Your task to perform on an android device: turn off data saver in the chrome app Image 0: 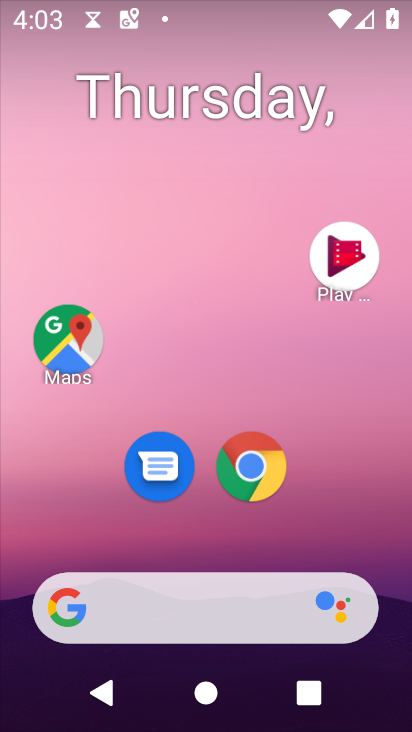
Step 0: drag from (215, 552) to (217, 57)
Your task to perform on an android device: turn off data saver in the chrome app Image 1: 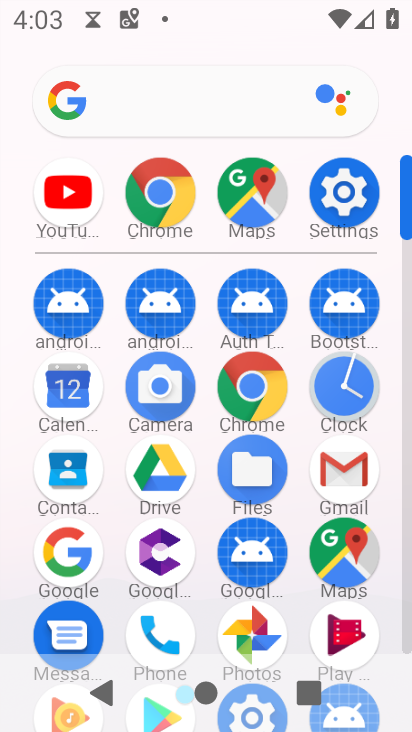
Step 1: click (230, 390)
Your task to perform on an android device: turn off data saver in the chrome app Image 2: 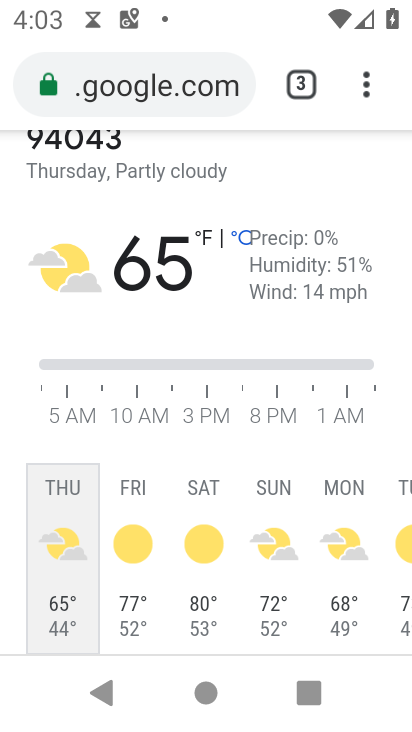
Step 2: drag from (368, 81) to (159, 530)
Your task to perform on an android device: turn off data saver in the chrome app Image 3: 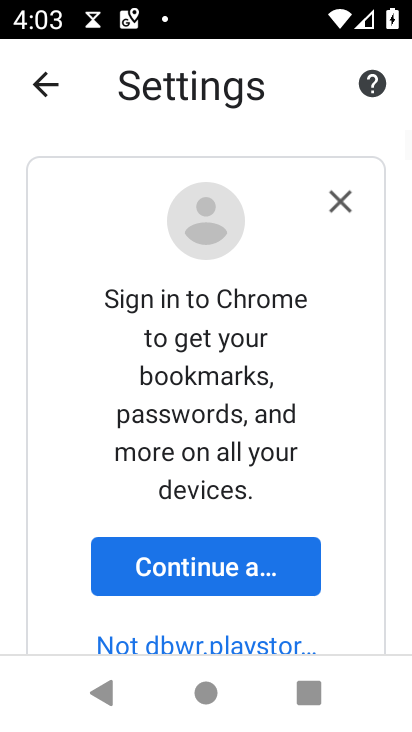
Step 3: drag from (280, 516) to (339, 0)
Your task to perform on an android device: turn off data saver in the chrome app Image 4: 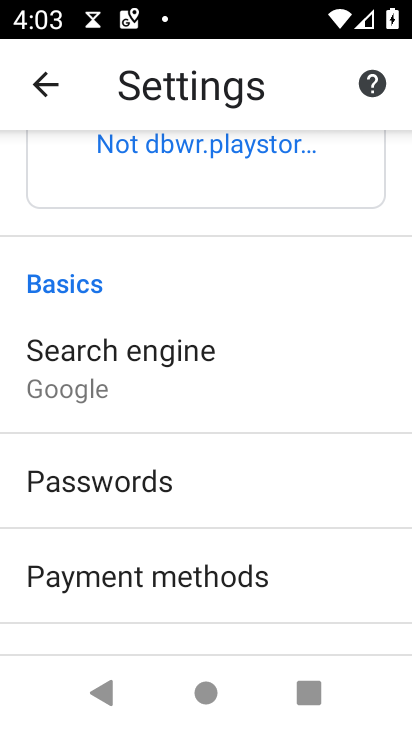
Step 4: drag from (184, 631) to (242, 70)
Your task to perform on an android device: turn off data saver in the chrome app Image 5: 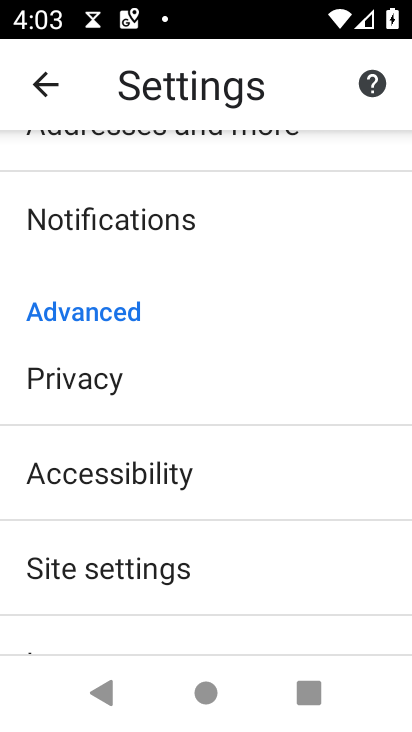
Step 5: drag from (84, 643) to (175, 422)
Your task to perform on an android device: turn off data saver in the chrome app Image 6: 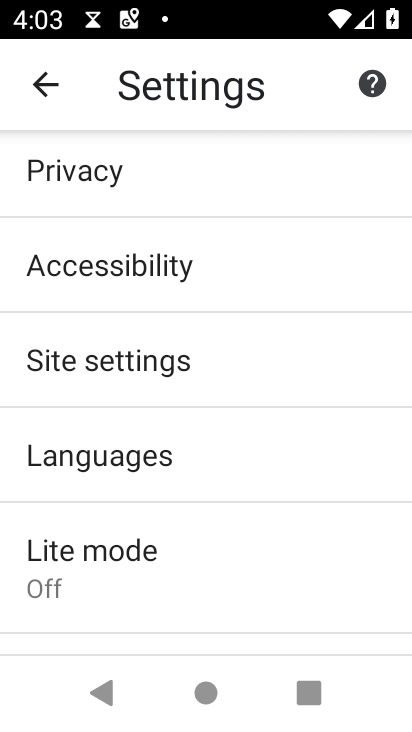
Step 6: click (154, 592)
Your task to perform on an android device: turn off data saver in the chrome app Image 7: 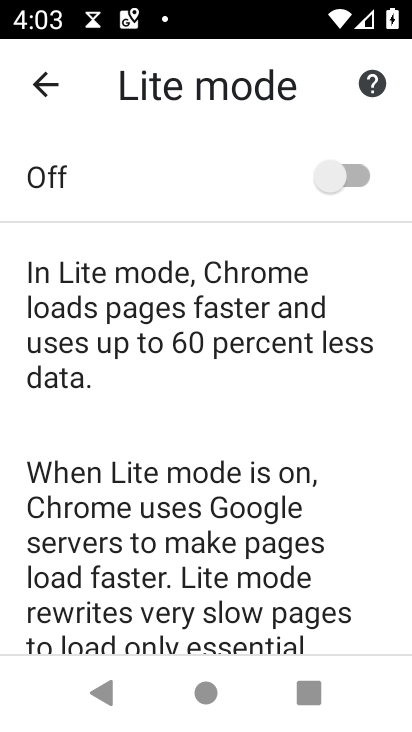
Step 7: task complete